Your task to perform on an android device: Go to privacy settings Image 0: 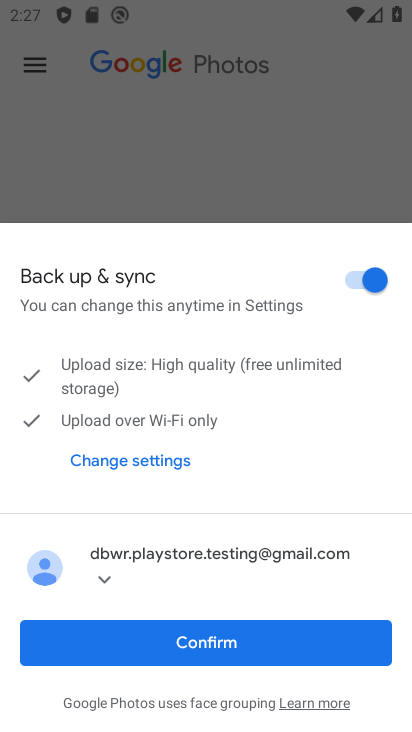
Step 0: press home button
Your task to perform on an android device: Go to privacy settings Image 1: 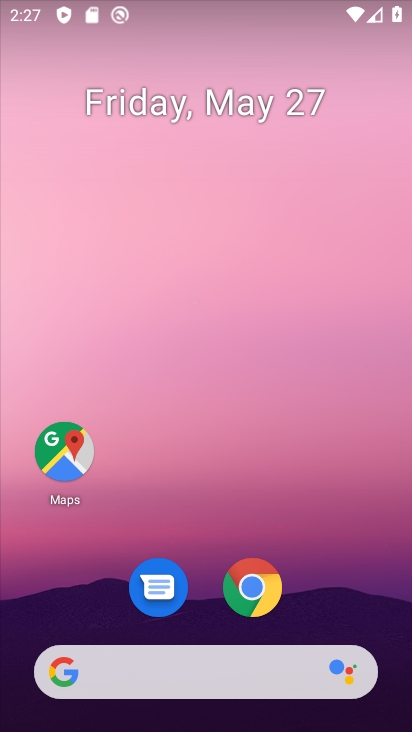
Step 1: drag from (318, 602) to (326, 236)
Your task to perform on an android device: Go to privacy settings Image 2: 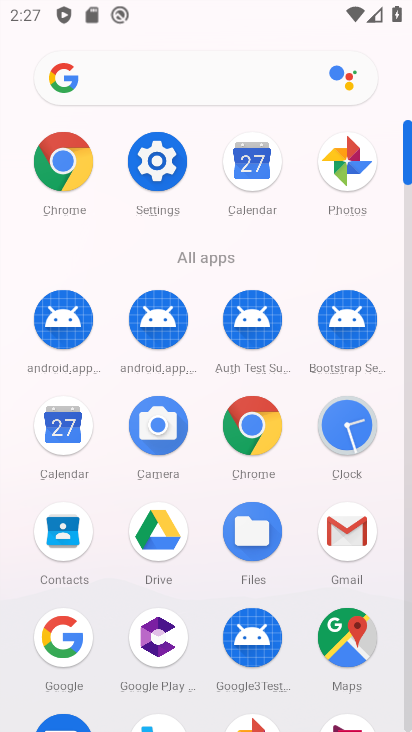
Step 2: click (167, 163)
Your task to perform on an android device: Go to privacy settings Image 3: 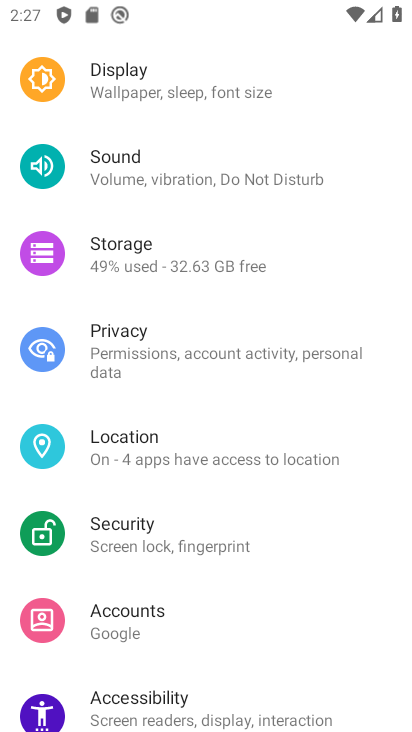
Step 3: click (99, 345)
Your task to perform on an android device: Go to privacy settings Image 4: 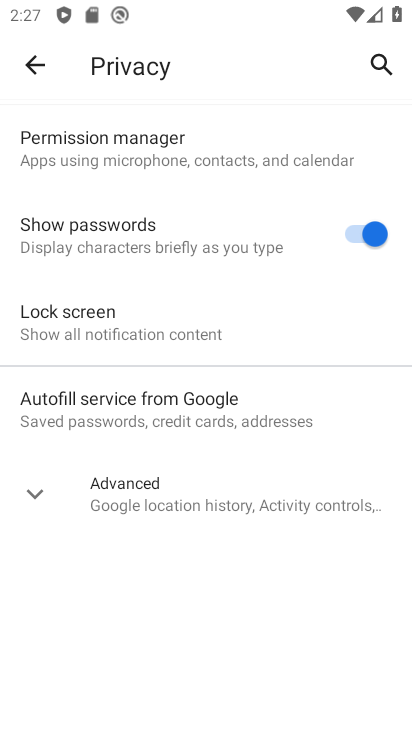
Step 4: task complete